Your task to perform on an android device: Open network settings Image 0: 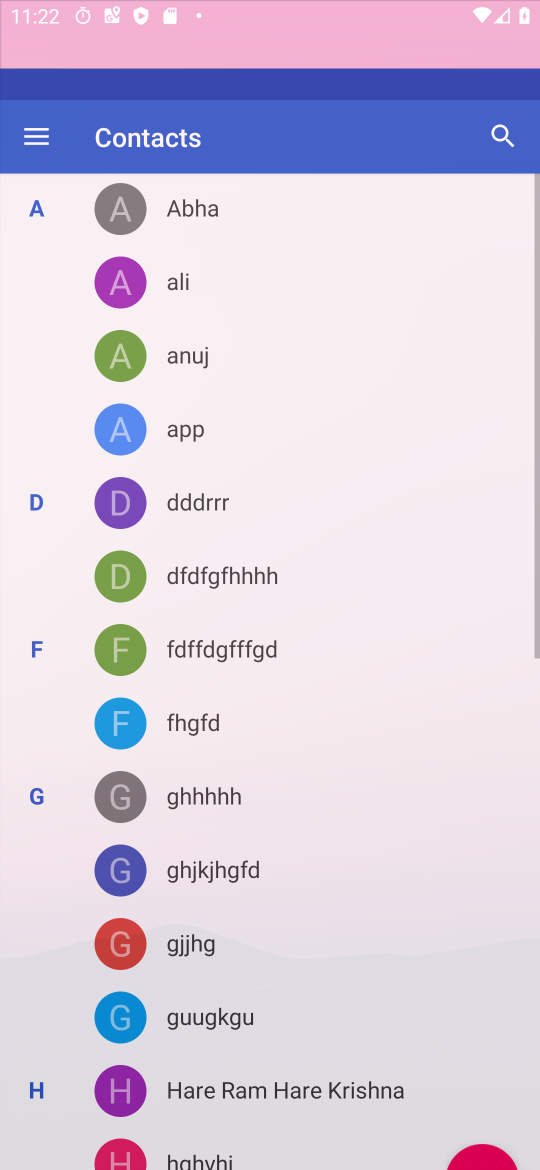
Step 0: click (61, 72)
Your task to perform on an android device: Open network settings Image 1: 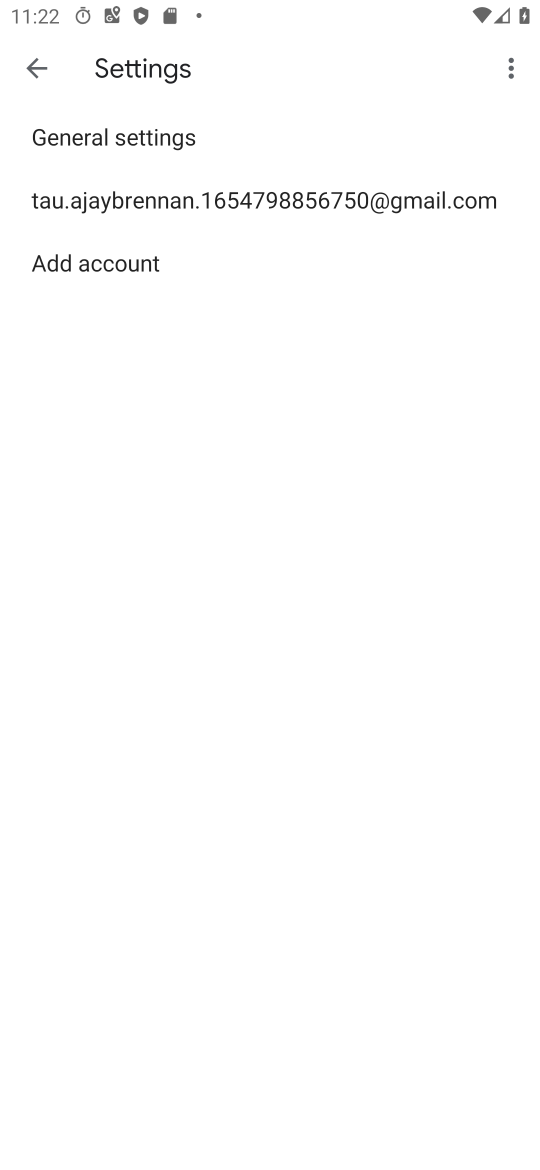
Step 1: click (47, 73)
Your task to perform on an android device: Open network settings Image 2: 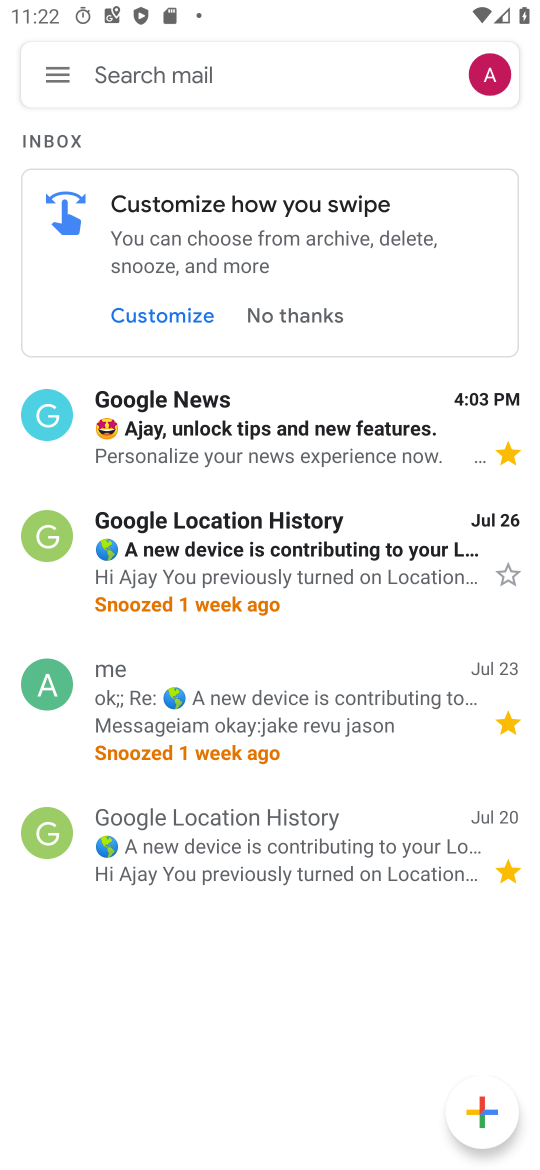
Step 2: press back button
Your task to perform on an android device: Open network settings Image 3: 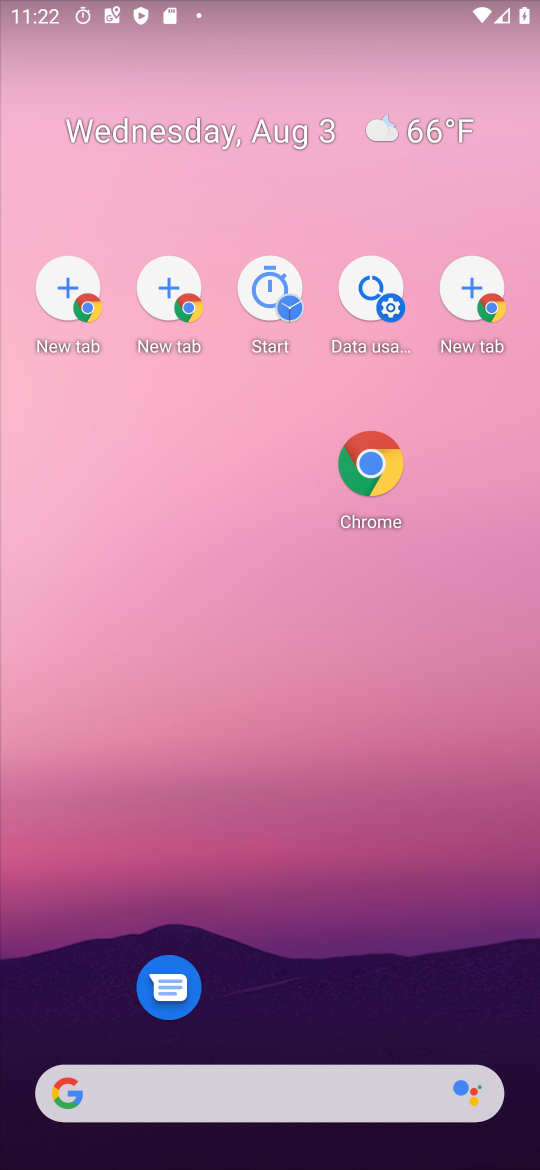
Step 3: drag from (350, 693) to (273, 177)
Your task to perform on an android device: Open network settings Image 4: 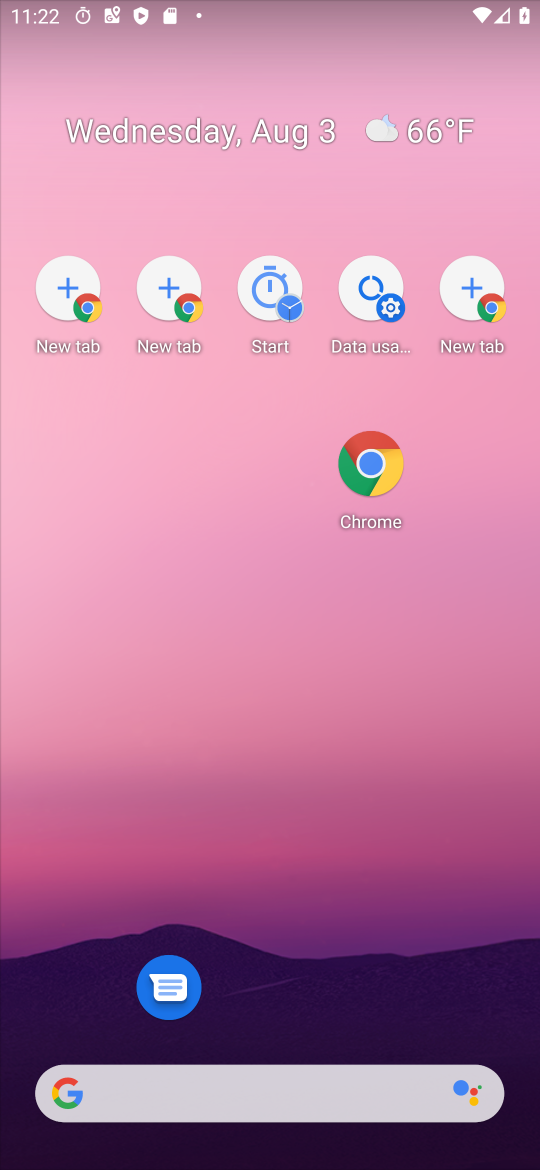
Step 4: drag from (365, 796) to (303, 48)
Your task to perform on an android device: Open network settings Image 5: 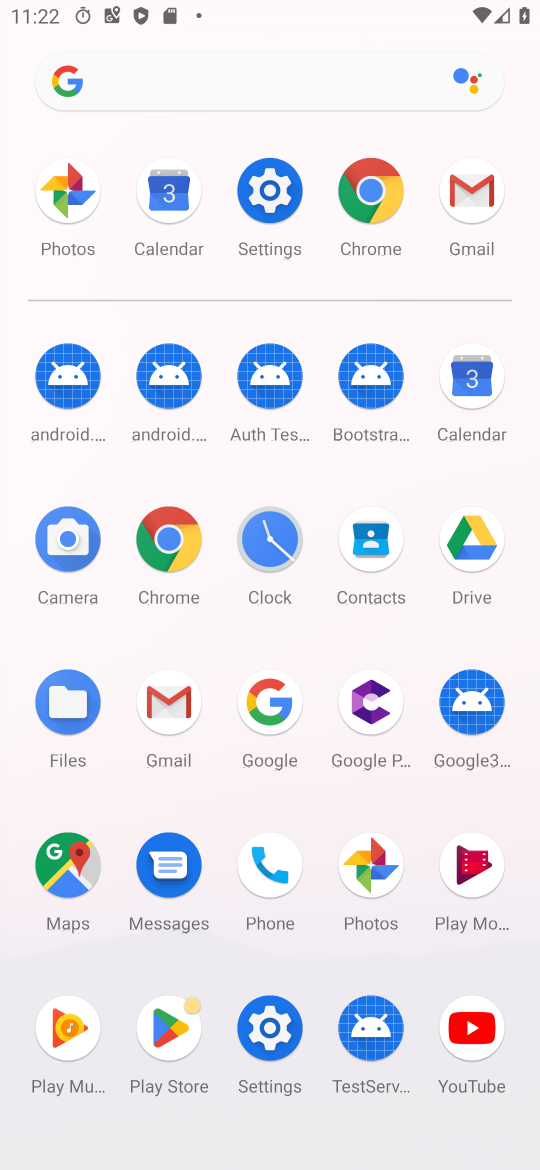
Step 5: click (278, 204)
Your task to perform on an android device: Open network settings Image 6: 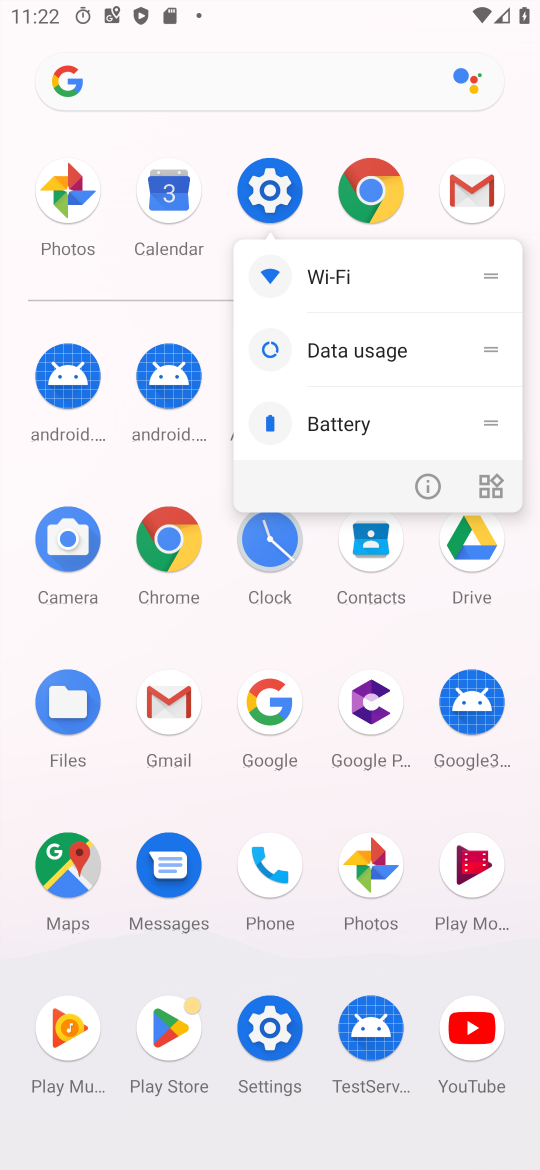
Step 6: click (281, 190)
Your task to perform on an android device: Open network settings Image 7: 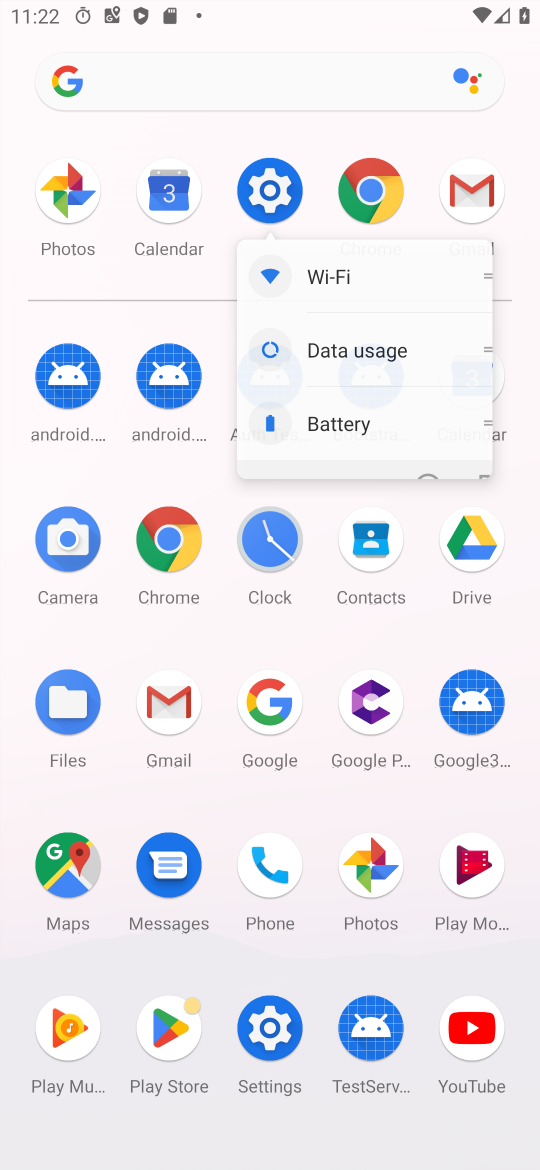
Step 7: click (281, 190)
Your task to perform on an android device: Open network settings Image 8: 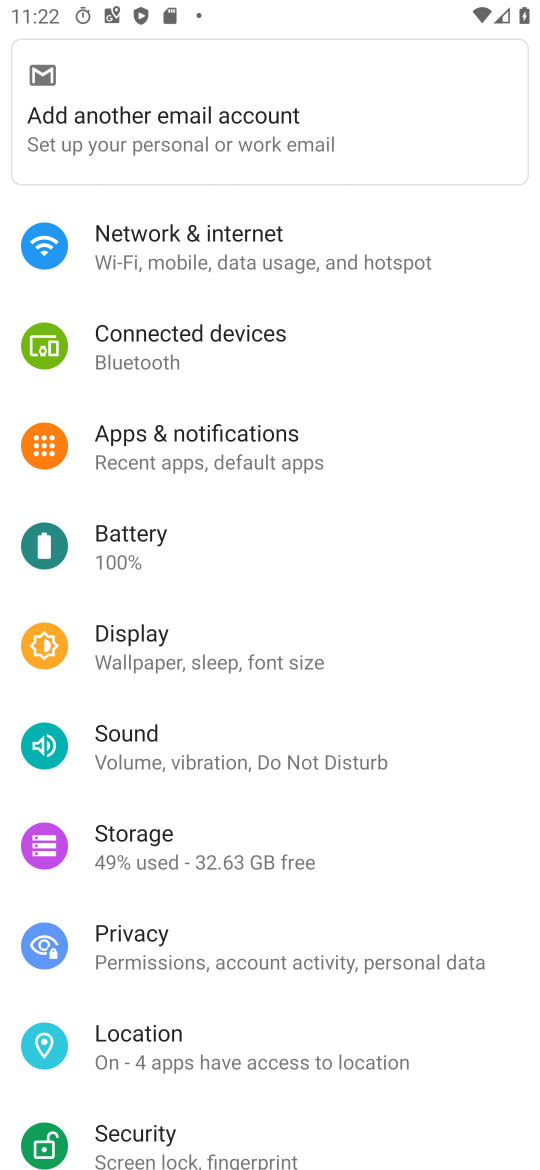
Step 8: click (141, 255)
Your task to perform on an android device: Open network settings Image 9: 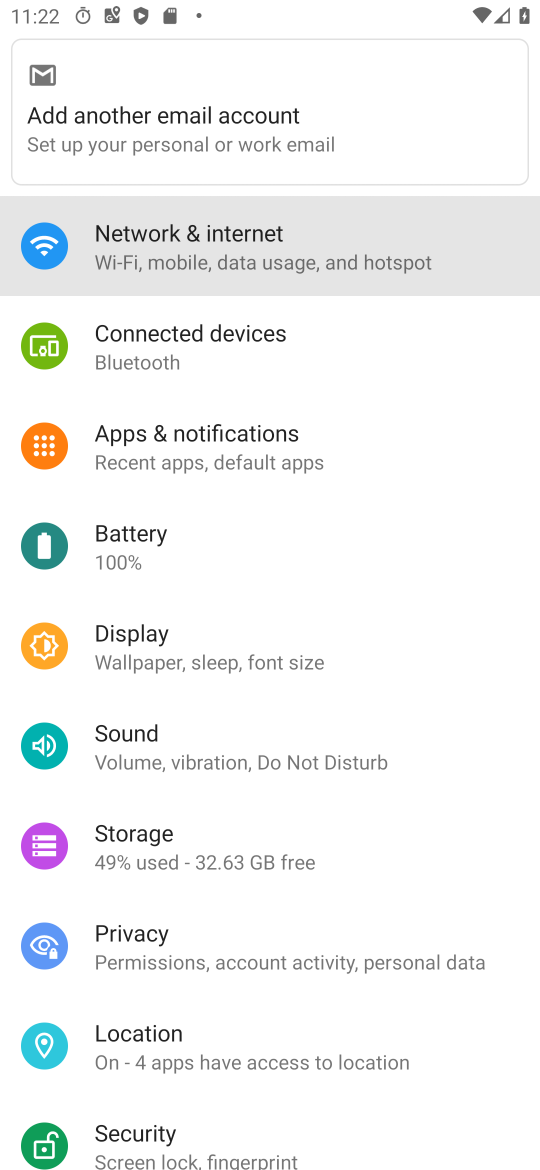
Step 9: click (156, 260)
Your task to perform on an android device: Open network settings Image 10: 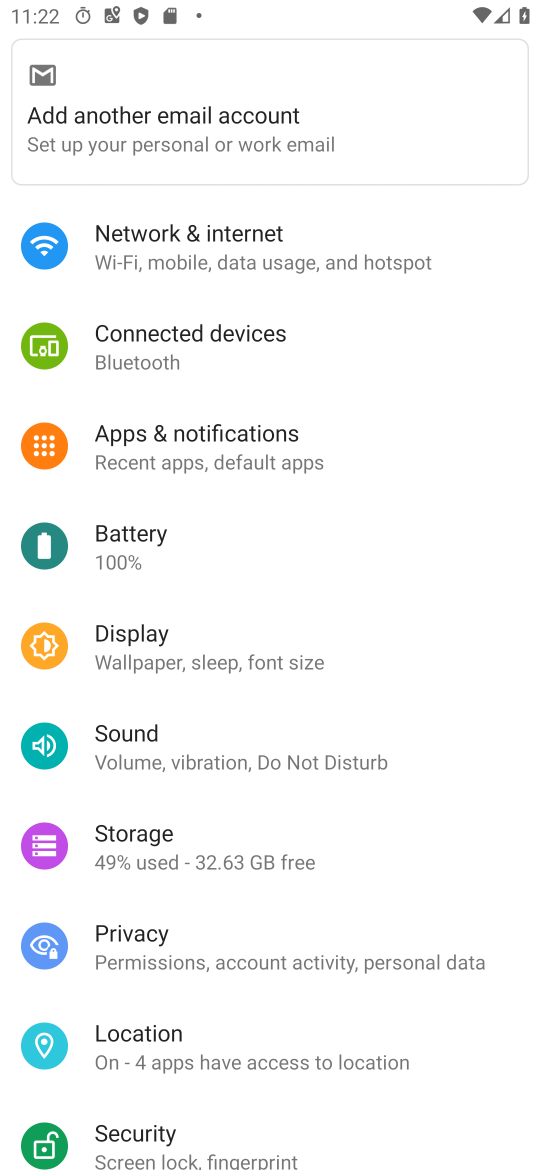
Step 10: click (171, 261)
Your task to perform on an android device: Open network settings Image 11: 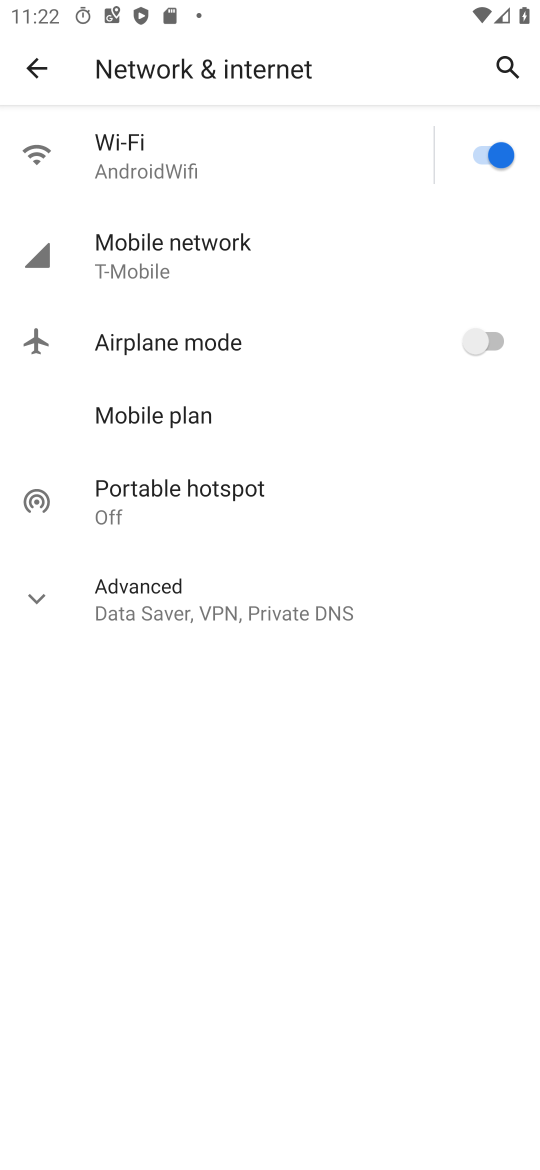
Step 11: task complete